Your task to perform on an android device: Go to Maps Image 0: 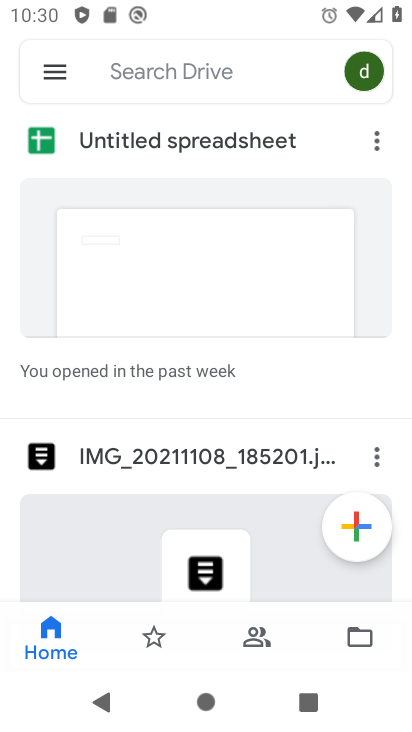
Step 0: press home button
Your task to perform on an android device: Go to Maps Image 1: 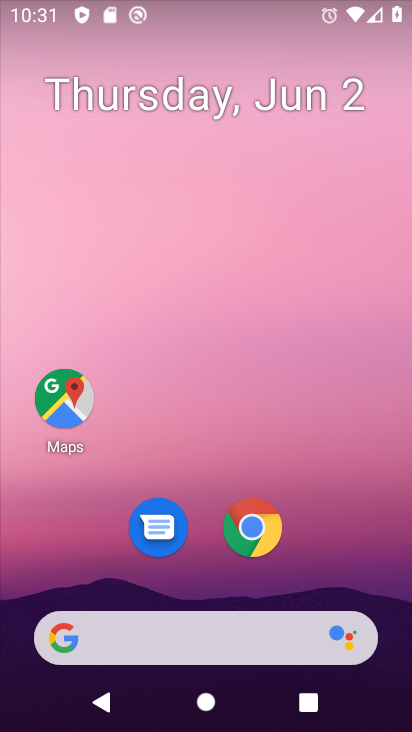
Step 1: click (51, 377)
Your task to perform on an android device: Go to Maps Image 2: 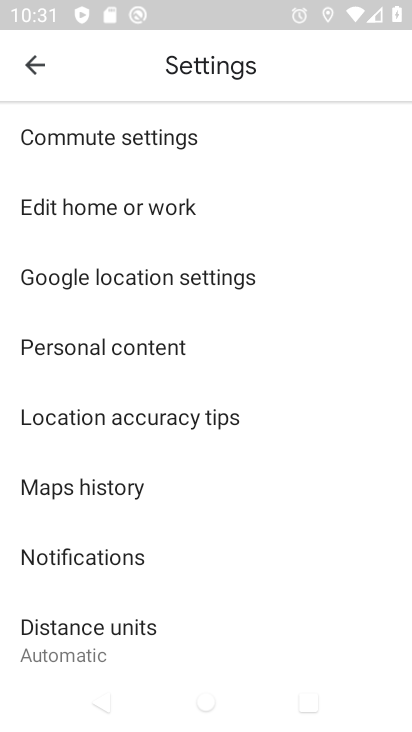
Step 2: task complete